Your task to perform on an android device: Open accessibility settings Image 0: 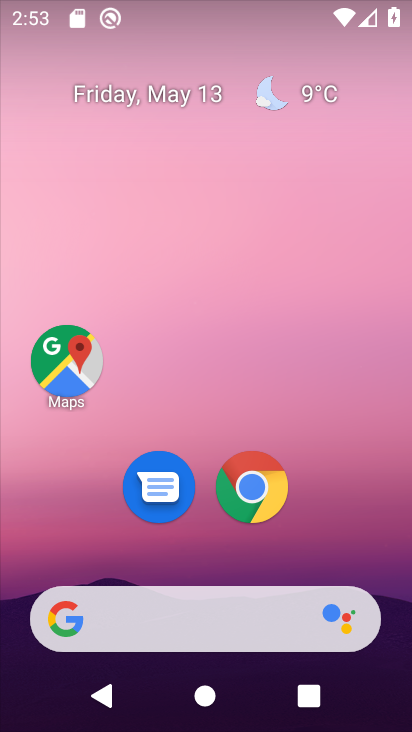
Step 0: drag from (225, 619) to (242, 361)
Your task to perform on an android device: Open accessibility settings Image 1: 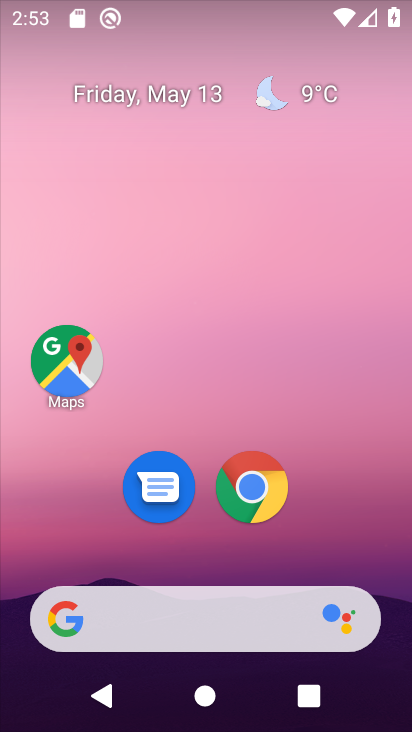
Step 1: drag from (205, 584) to (21, 0)
Your task to perform on an android device: Open accessibility settings Image 2: 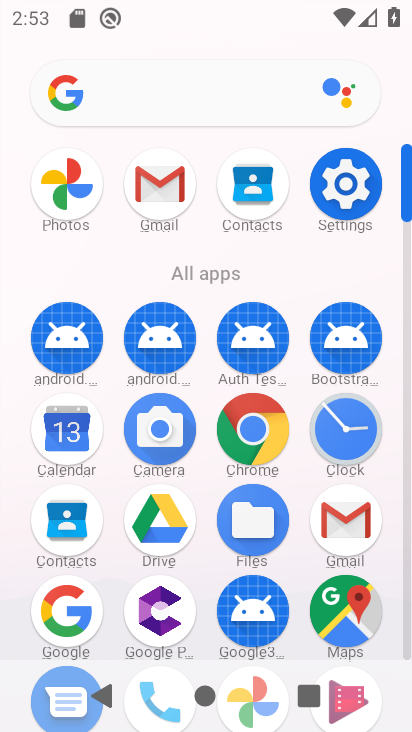
Step 2: click (358, 203)
Your task to perform on an android device: Open accessibility settings Image 3: 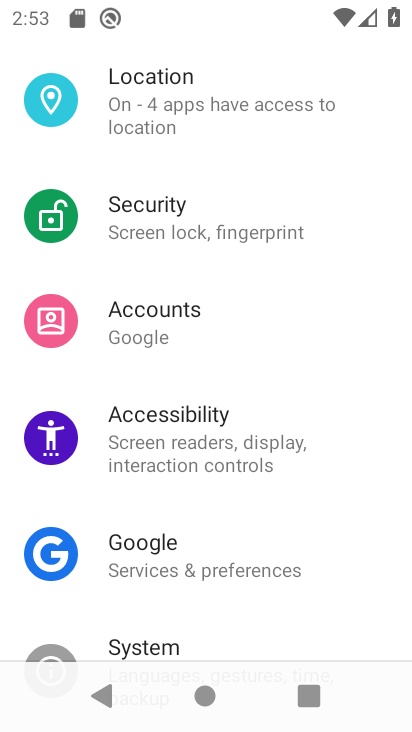
Step 3: click (148, 428)
Your task to perform on an android device: Open accessibility settings Image 4: 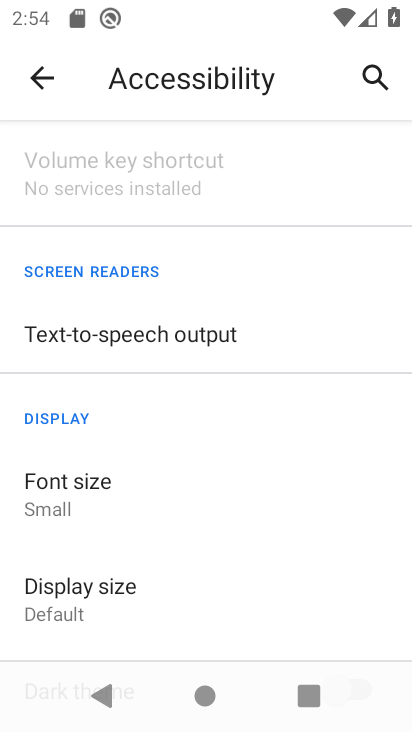
Step 4: task complete